Your task to perform on an android device: check out phone information Image 0: 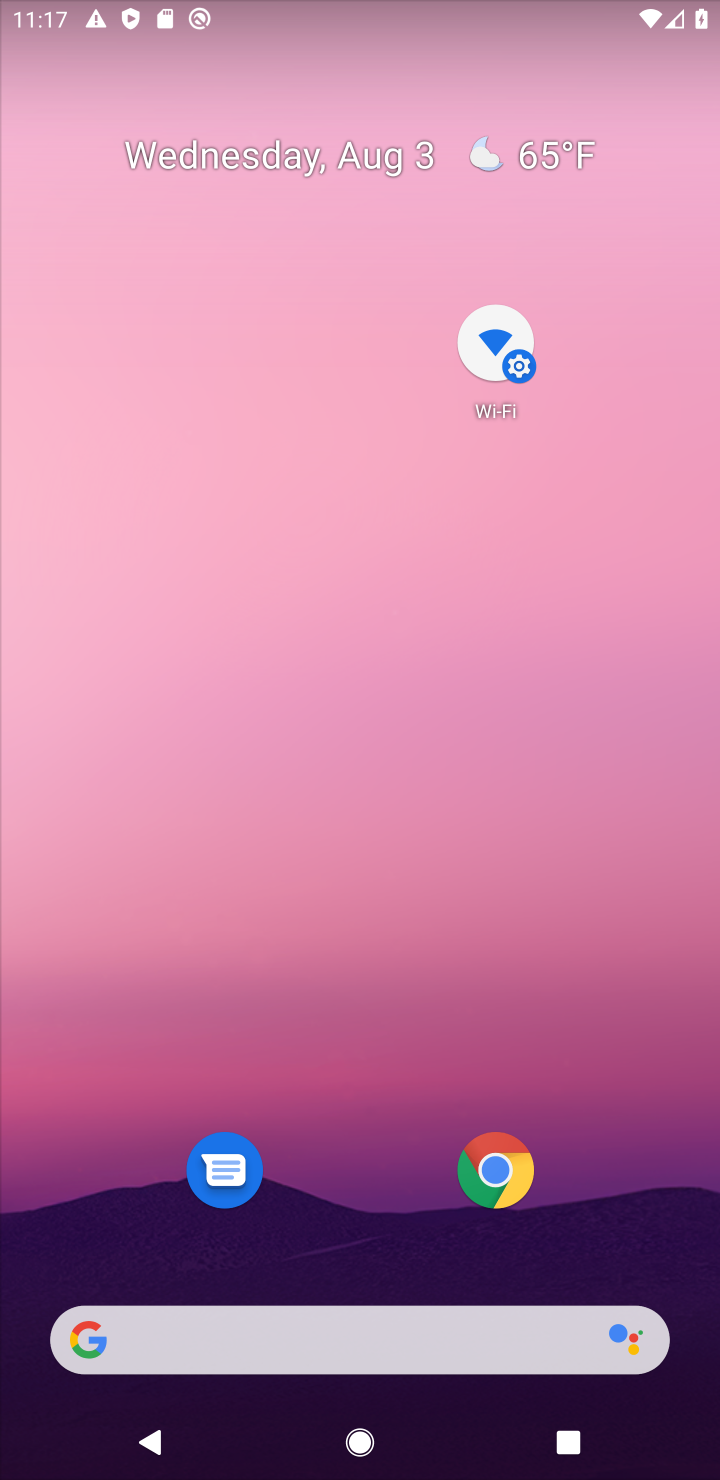
Step 0: drag from (390, 1228) to (512, 121)
Your task to perform on an android device: check out phone information Image 1: 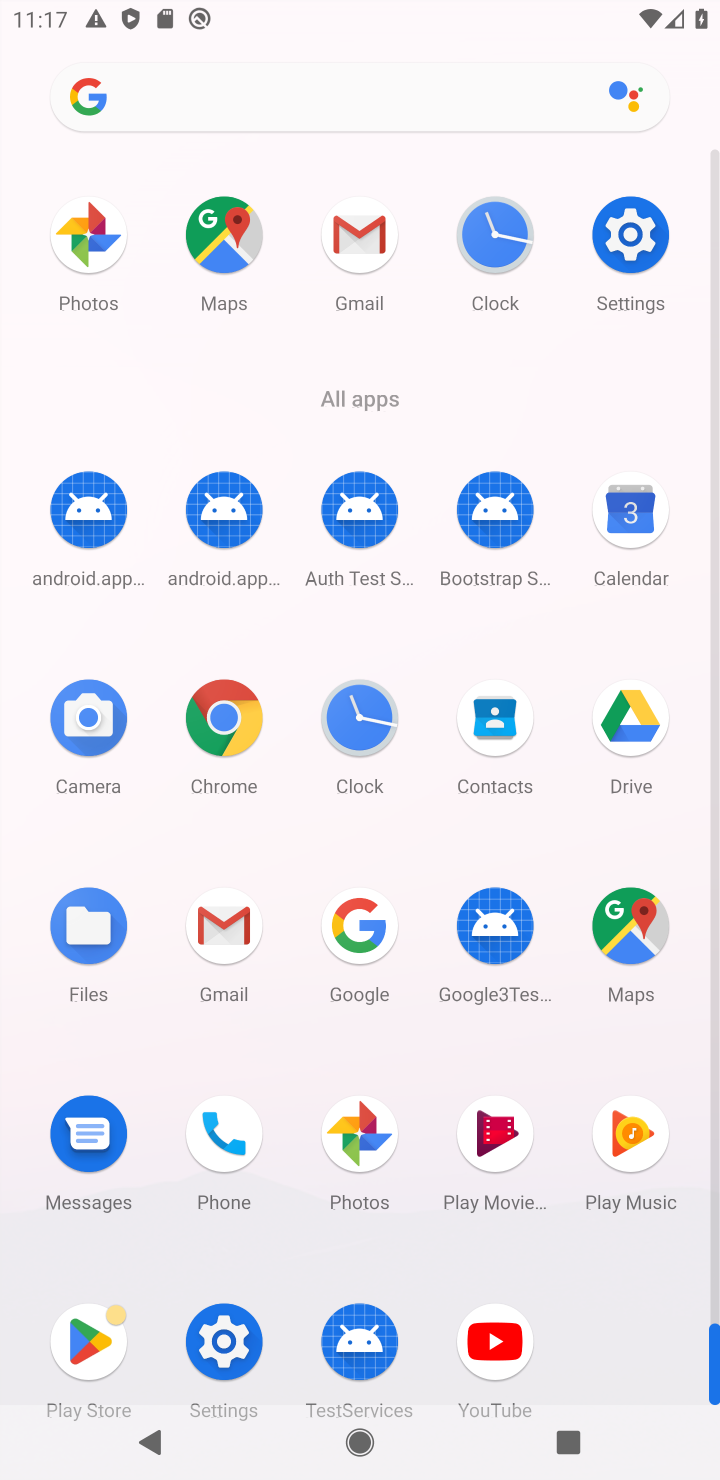
Step 1: click (239, 1321)
Your task to perform on an android device: check out phone information Image 2: 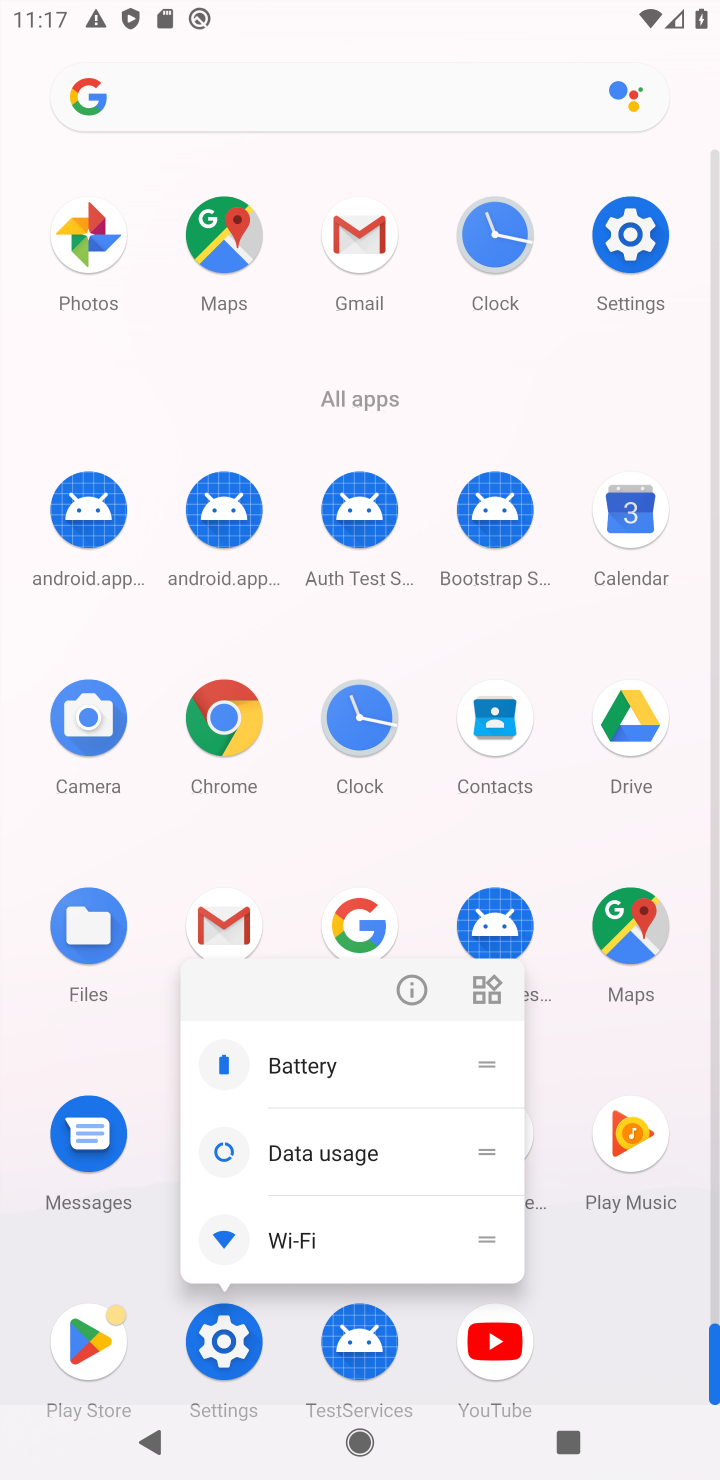
Step 2: click (412, 982)
Your task to perform on an android device: check out phone information Image 3: 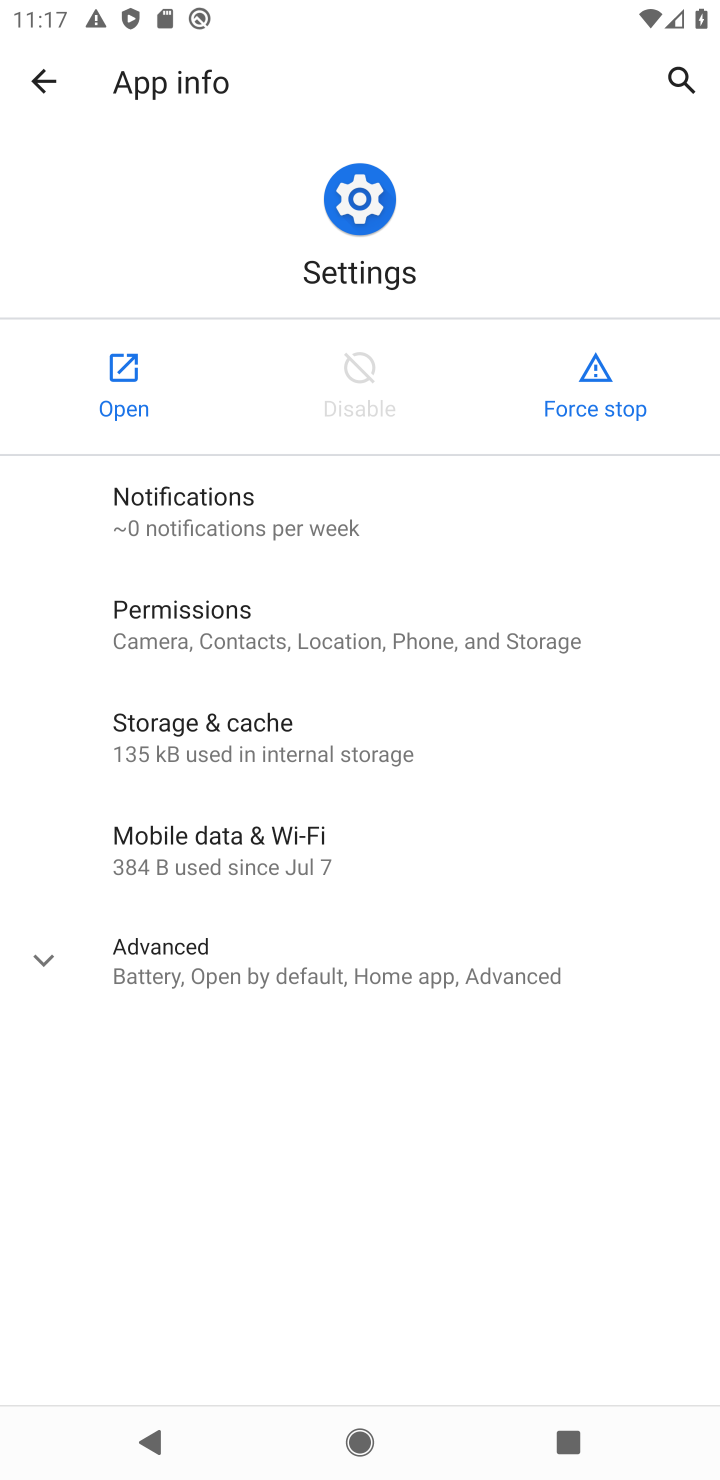
Step 3: click (142, 384)
Your task to perform on an android device: check out phone information Image 4: 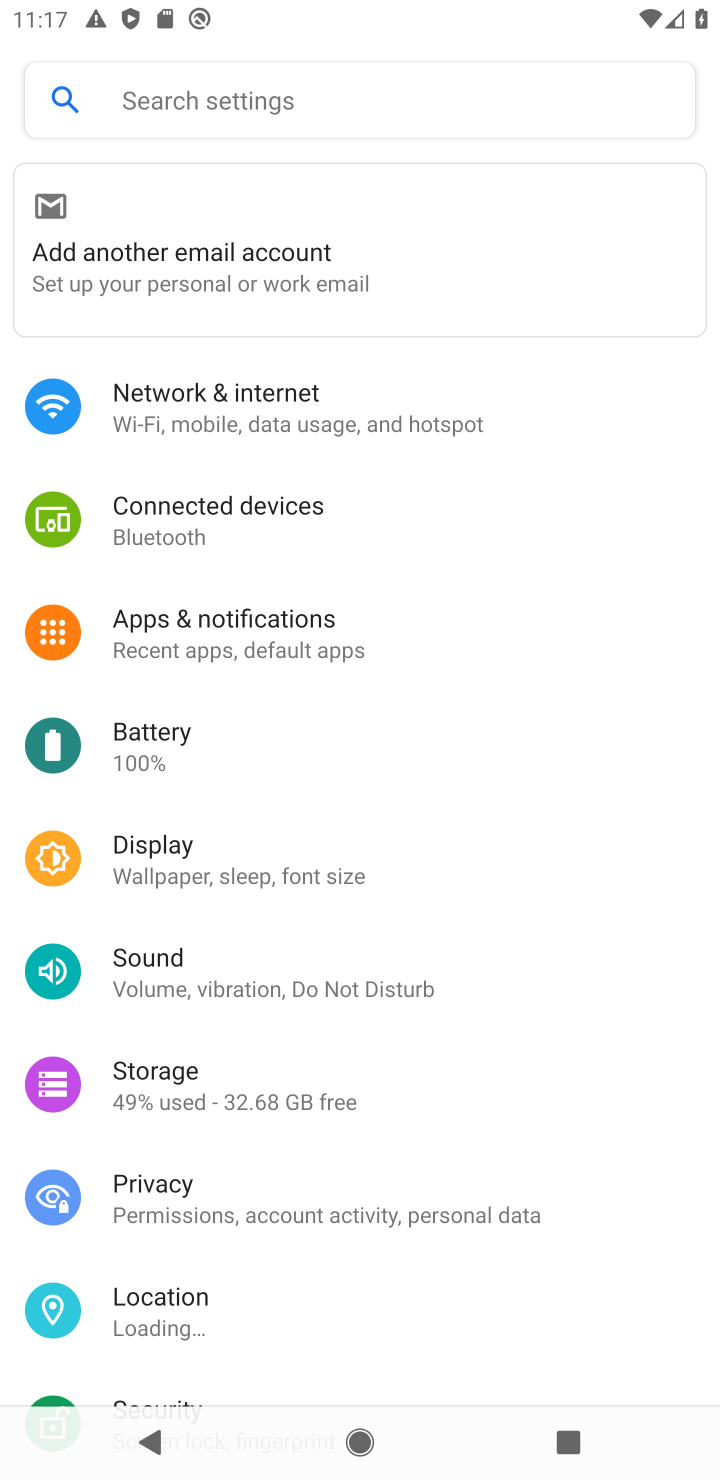
Step 4: drag from (359, 1231) to (415, 256)
Your task to perform on an android device: check out phone information Image 5: 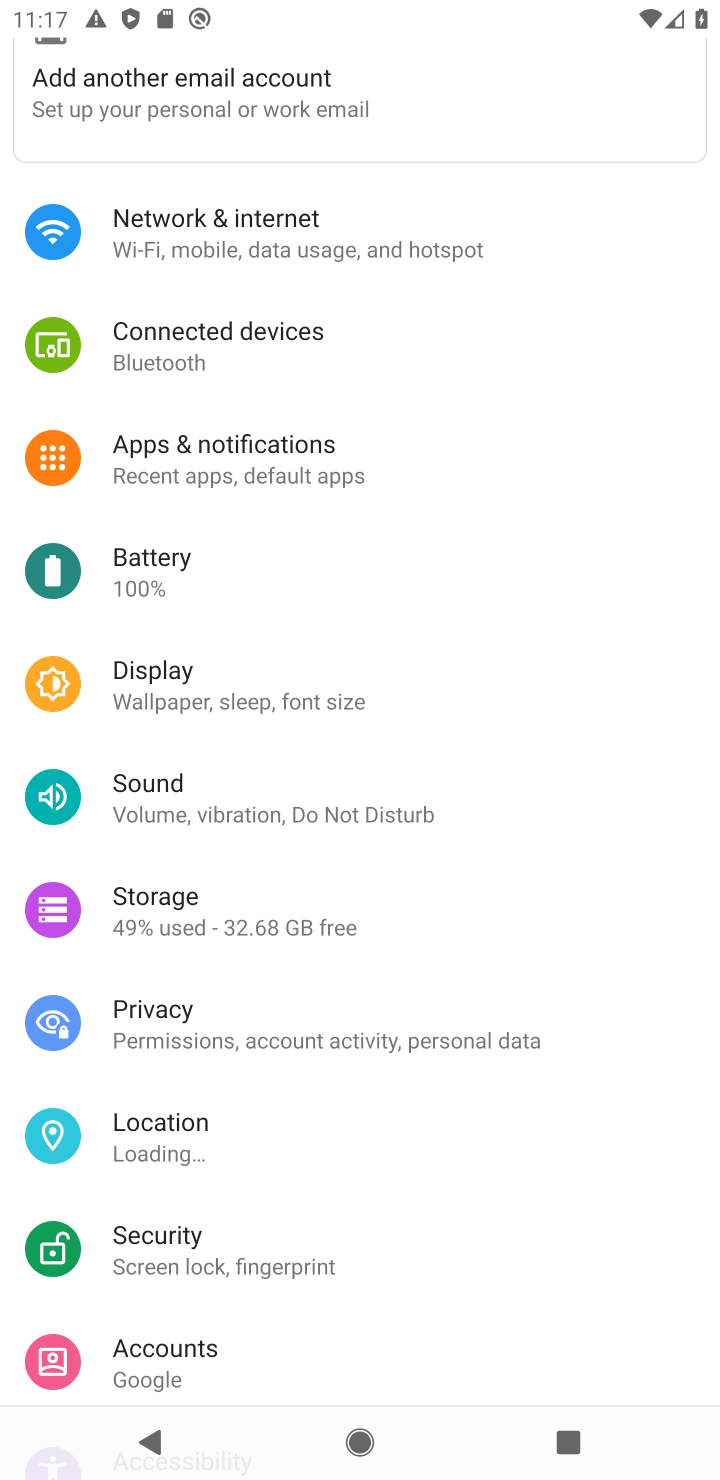
Step 5: drag from (346, 1015) to (378, 3)
Your task to perform on an android device: check out phone information Image 6: 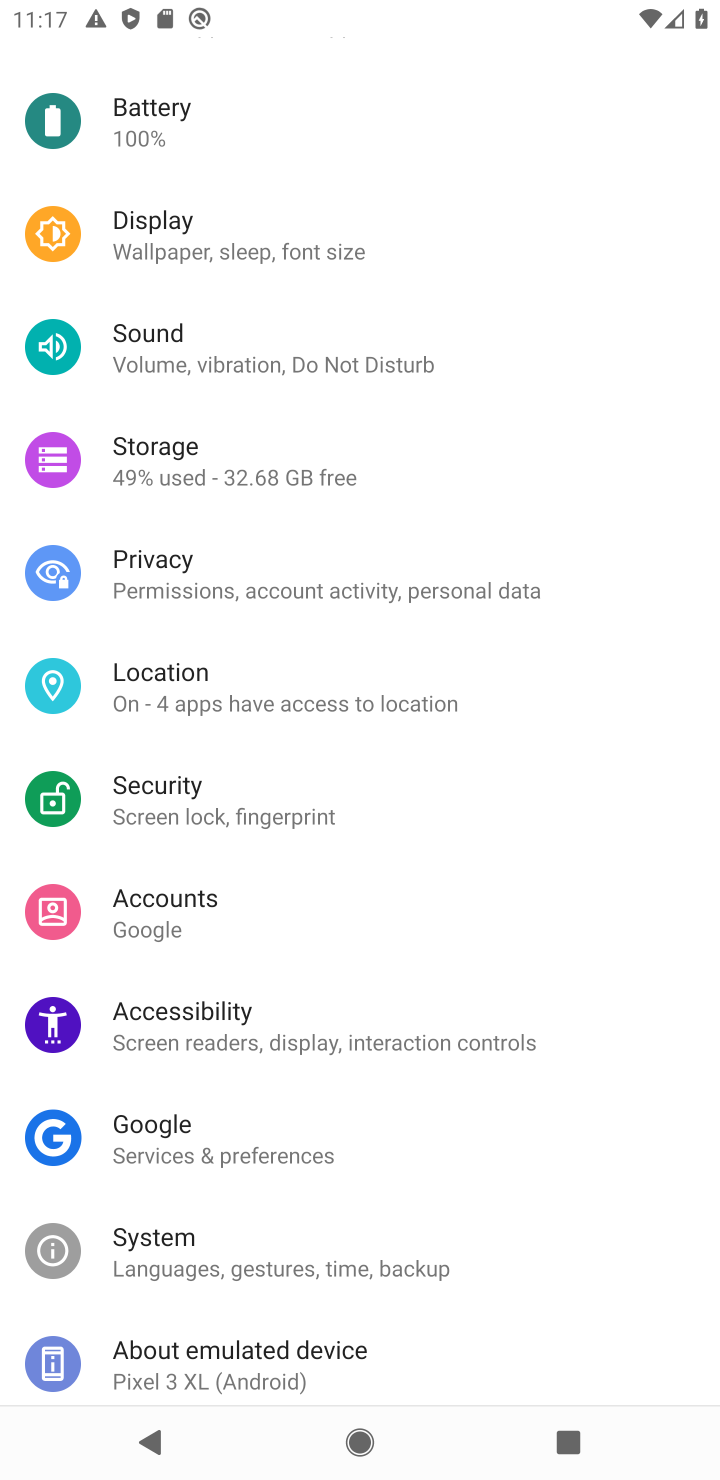
Step 6: click (239, 1343)
Your task to perform on an android device: check out phone information Image 7: 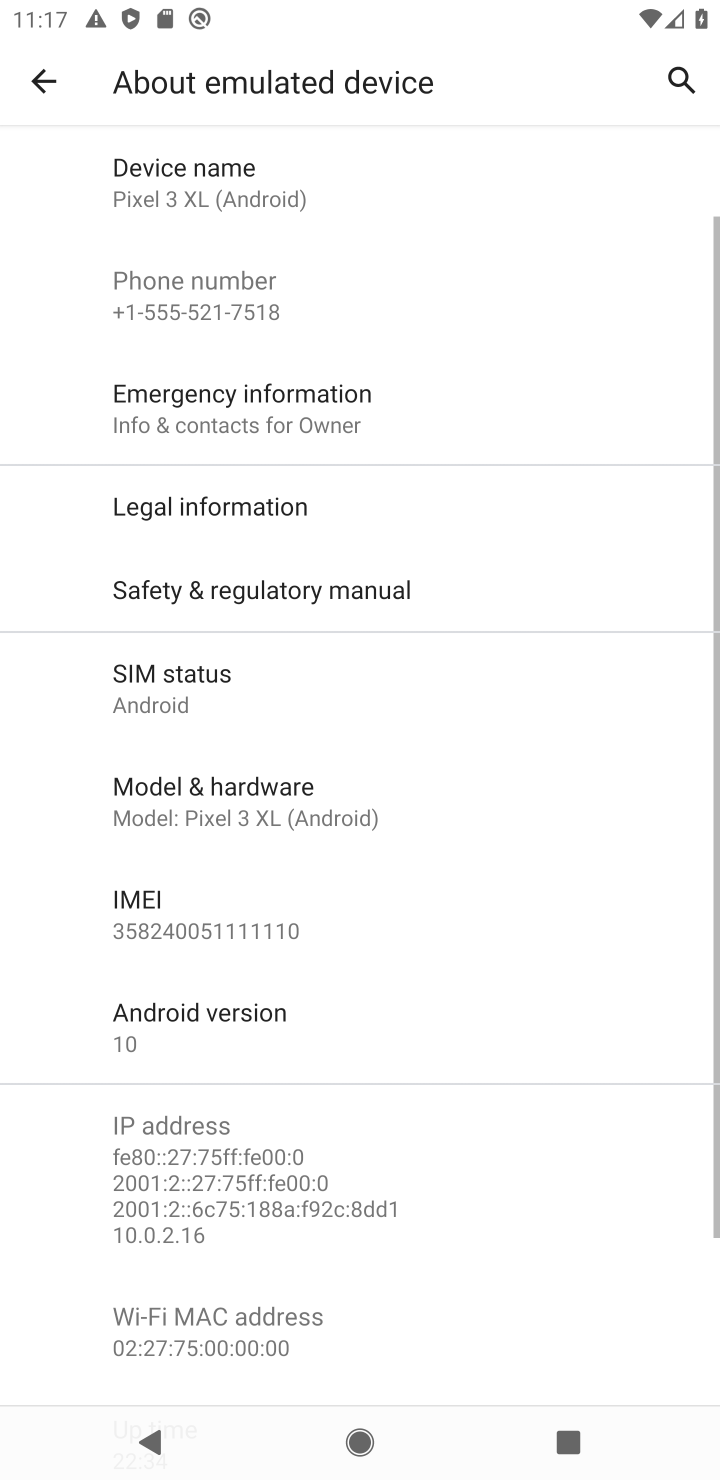
Step 7: task complete